Your task to perform on an android device: turn notification dots on Image 0: 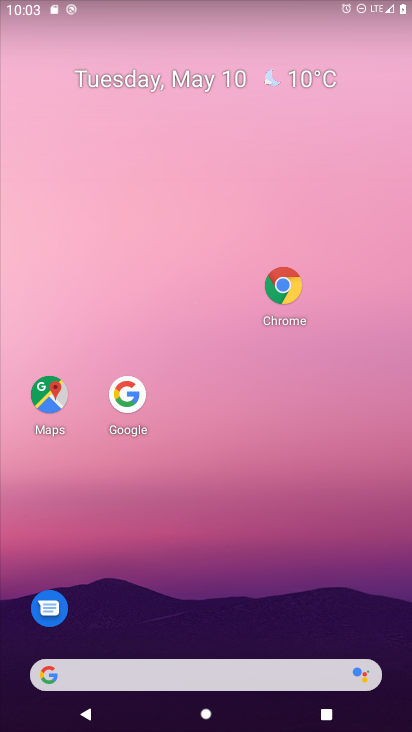
Step 0: drag from (157, 682) to (287, 252)
Your task to perform on an android device: turn notification dots on Image 1: 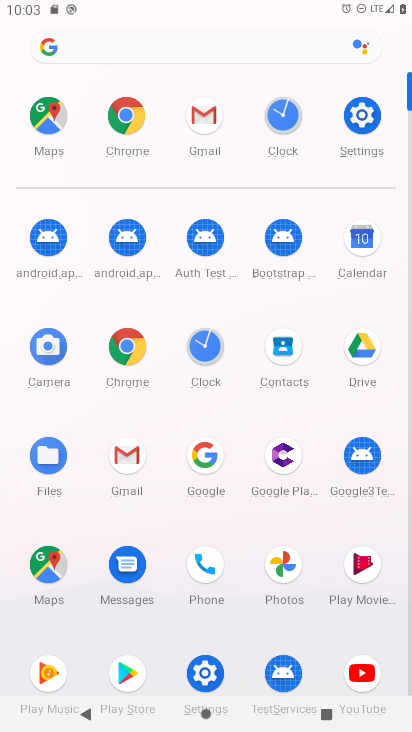
Step 1: click (356, 123)
Your task to perform on an android device: turn notification dots on Image 2: 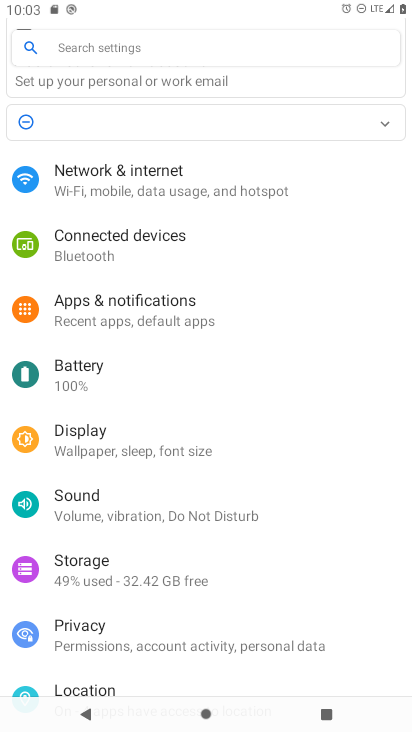
Step 2: click (157, 310)
Your task to perform on an android device: turn notification dots on Image 3: 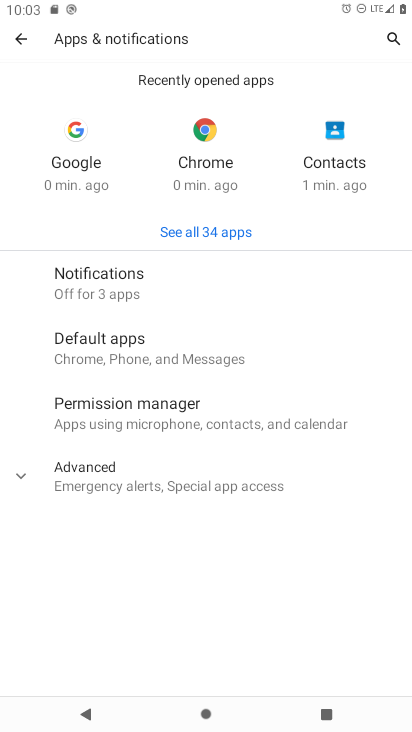
Step 3: click (116, 291)
Your task to perform on an android device: turn notification dots on Image 4: 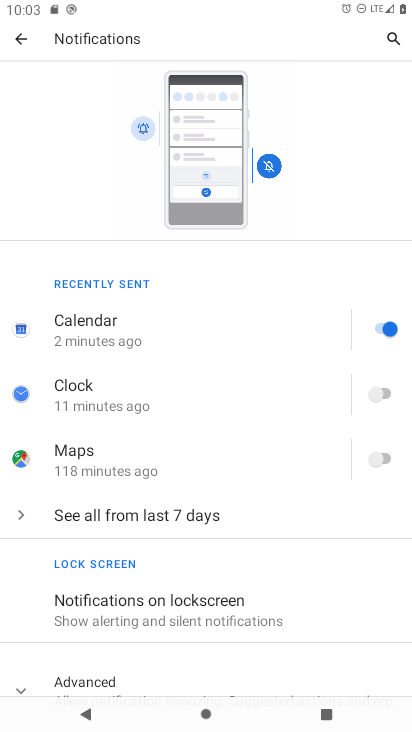
Step 4: drag from (220, 569) to (322, 213)
Your task to perform on an android device: turn notification dots on Image 5: 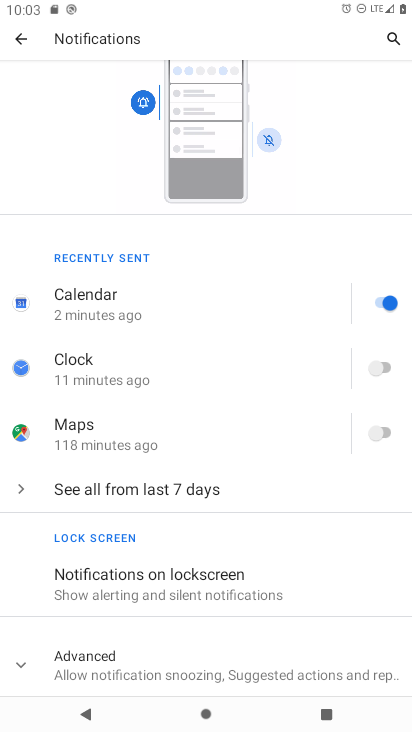
Step 5: click (134, 659)
Your task to perform on an android device: turn notification dots on Image 6: 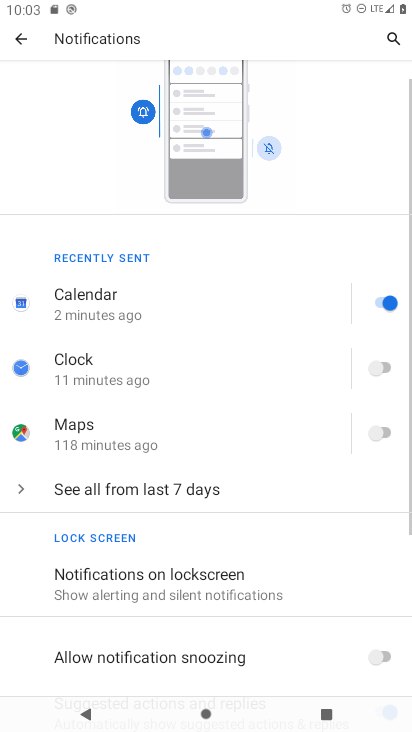
Step 6: task complete